Your task to perform on an android device: turn on the 24-hour format for clock Image 0: 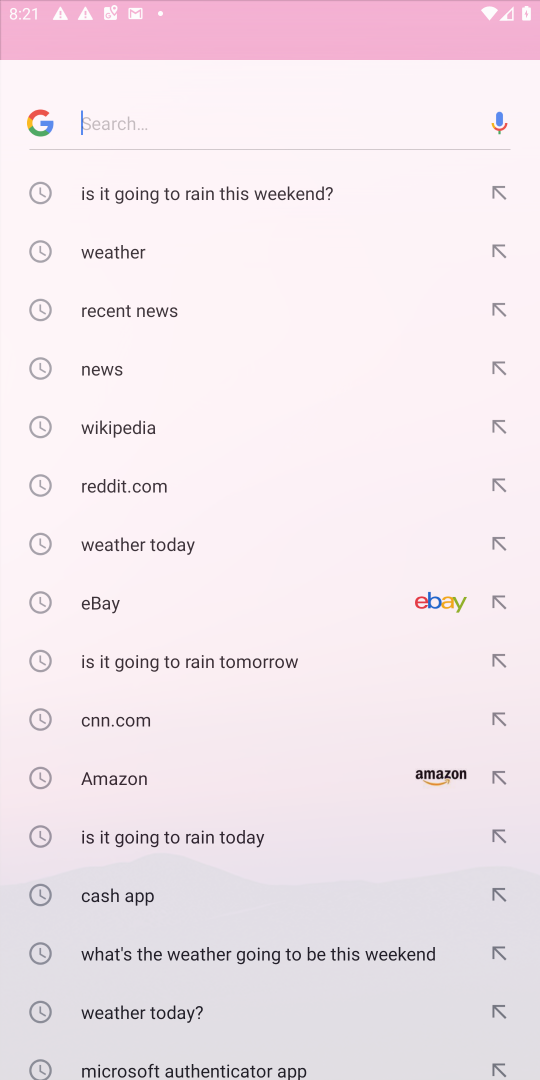
Step 0: click (492, 1046)
Your task to perform on an android device: turn on the 24-hour format for clock Image 1: 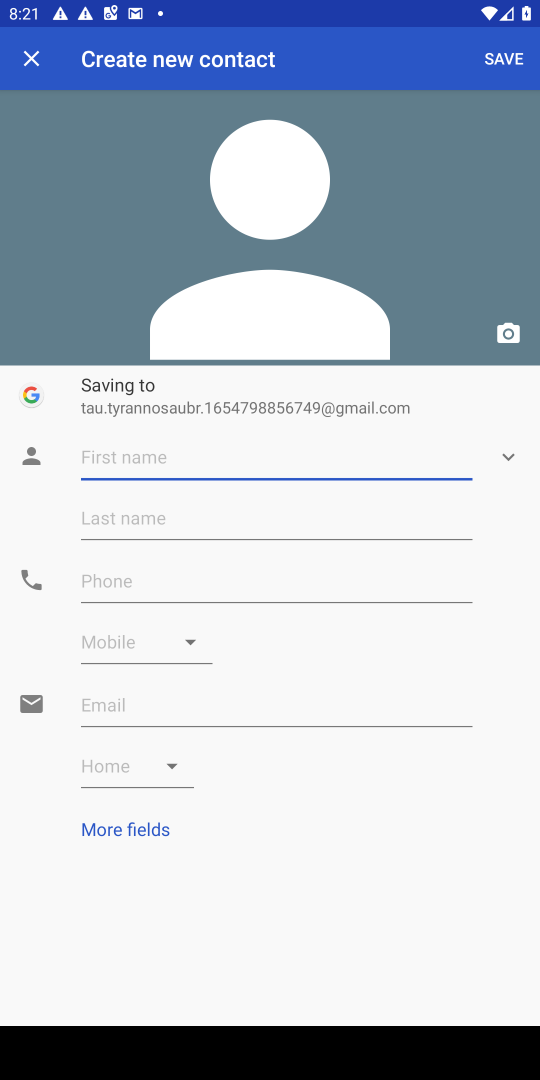
Step 1: press home button
Your task to perform on an android device: turn on the 24-hour format for clock Image 2: 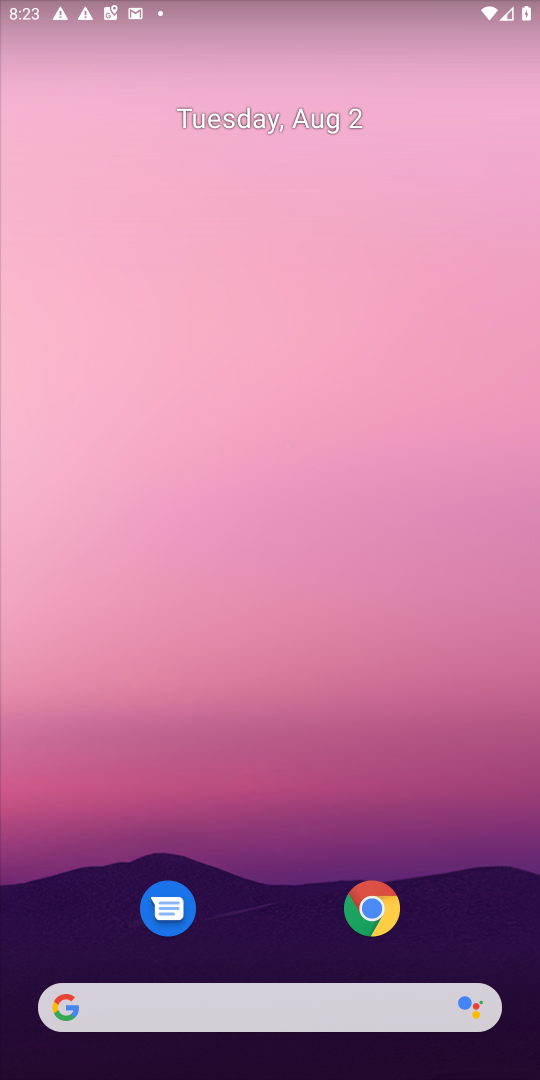
Step 2: drag from (365, 1001) to (256, 42)
Your task to perform on an android device: turn on the 24-hour format for clock Image 3: 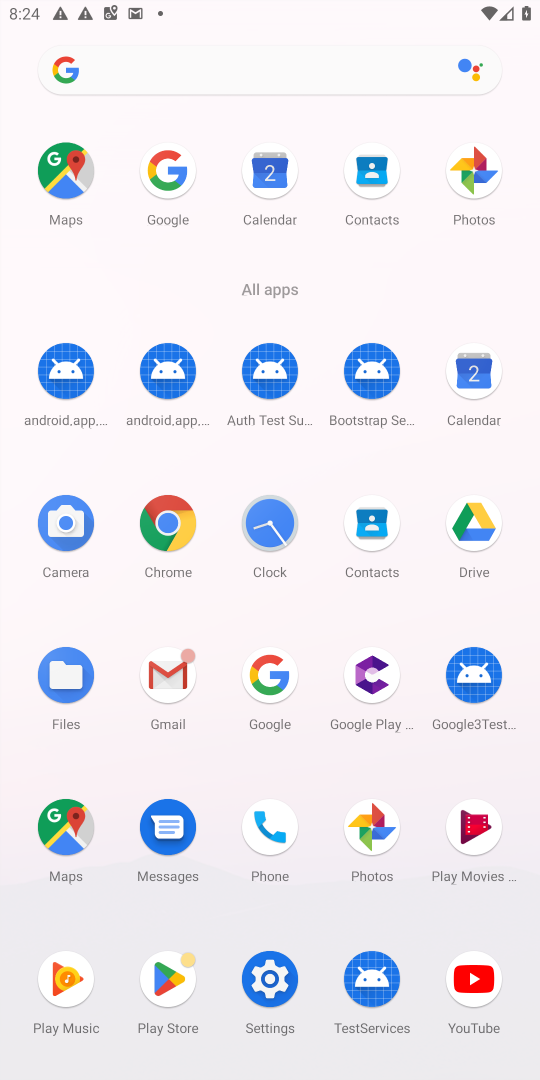
Step 3: click (286, 536)
Your task to perform on an android device: turn on the 24-hour format for clock Image 4: 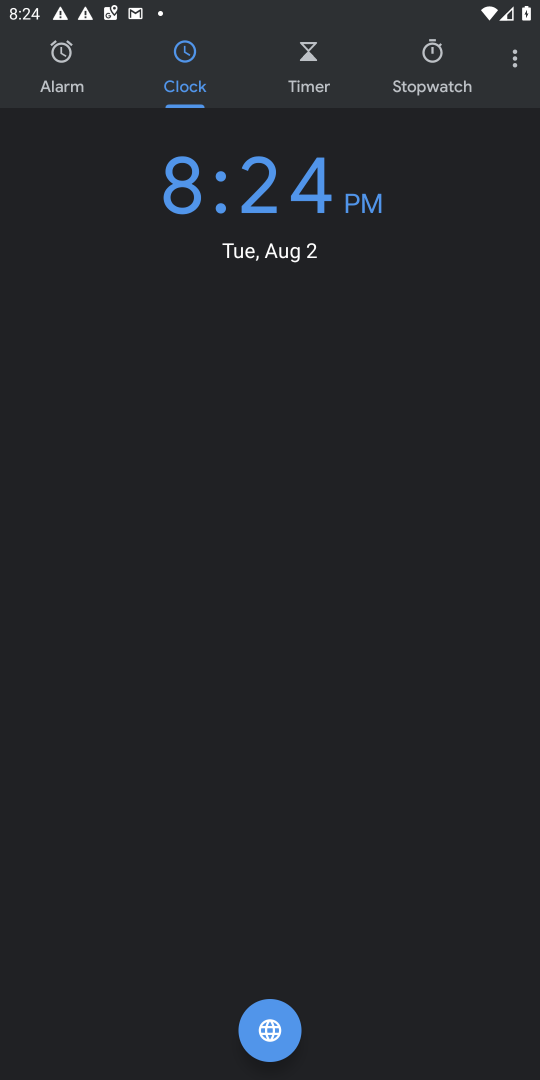
Step 4: click (519, 49)
Your task to perform on an android device: turn on the 24-hour format for clock Image 5: 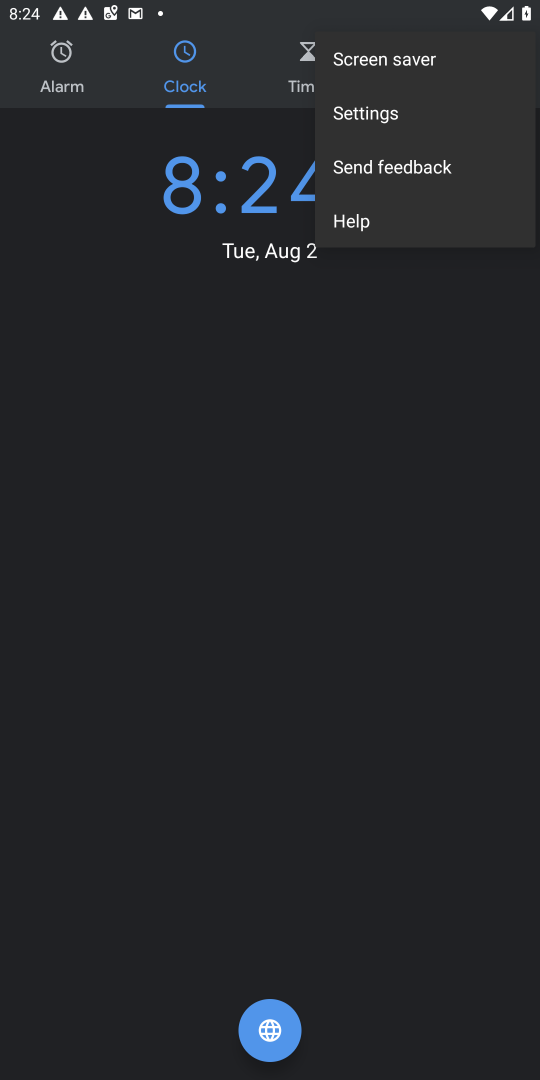
Step 5: click (381, 117)
Your task to perform on an android device: turn on the 24-hour format for clock Image 6: 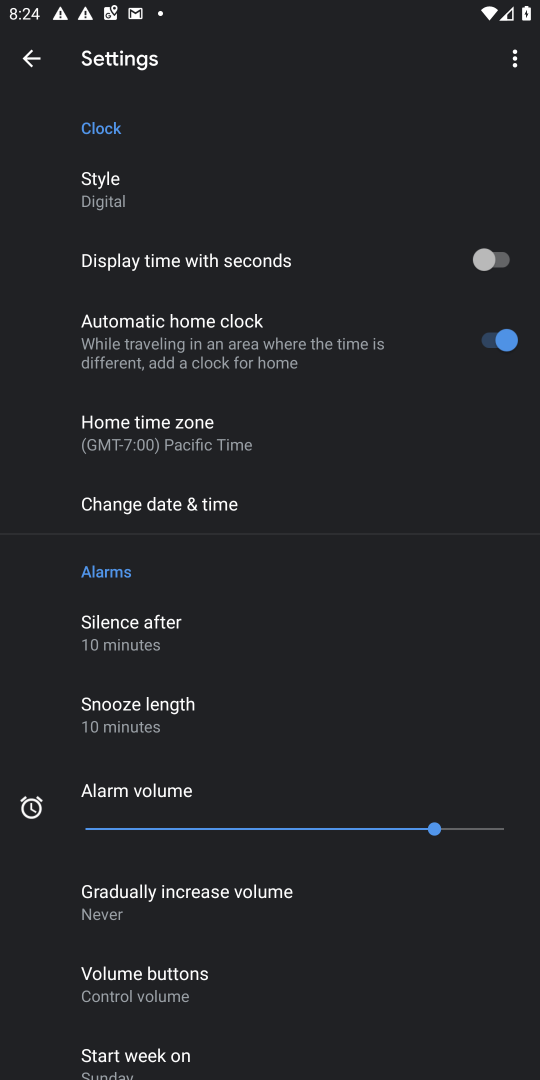
Step 6: click (242, 503)
Your task to perform on an android device: turn on the 24-hour format for clock Image 7: 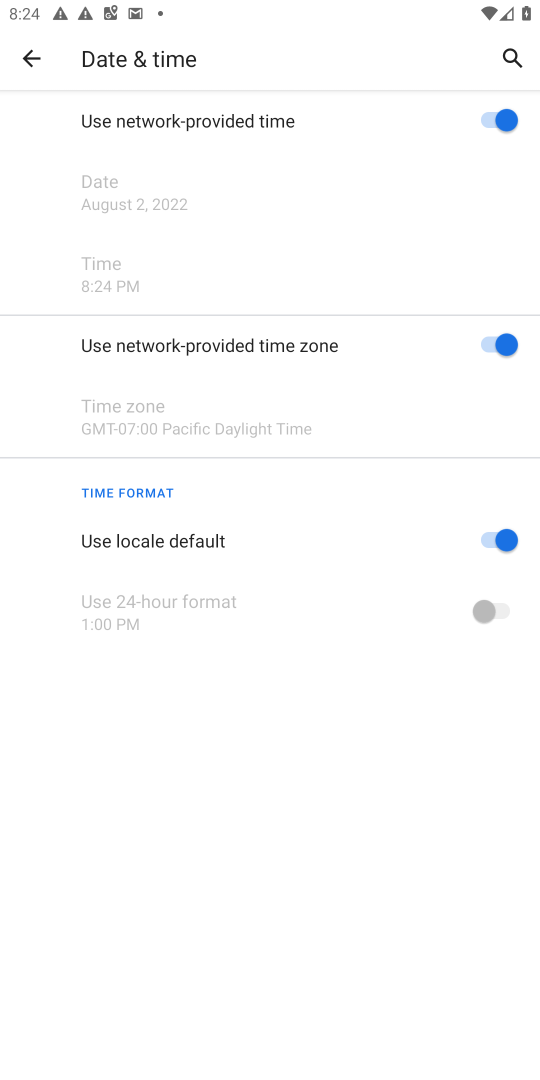
Step 7: click (505, 537)
Your task to perform on an android device: turn on the 24-hour format for clock Image 8: 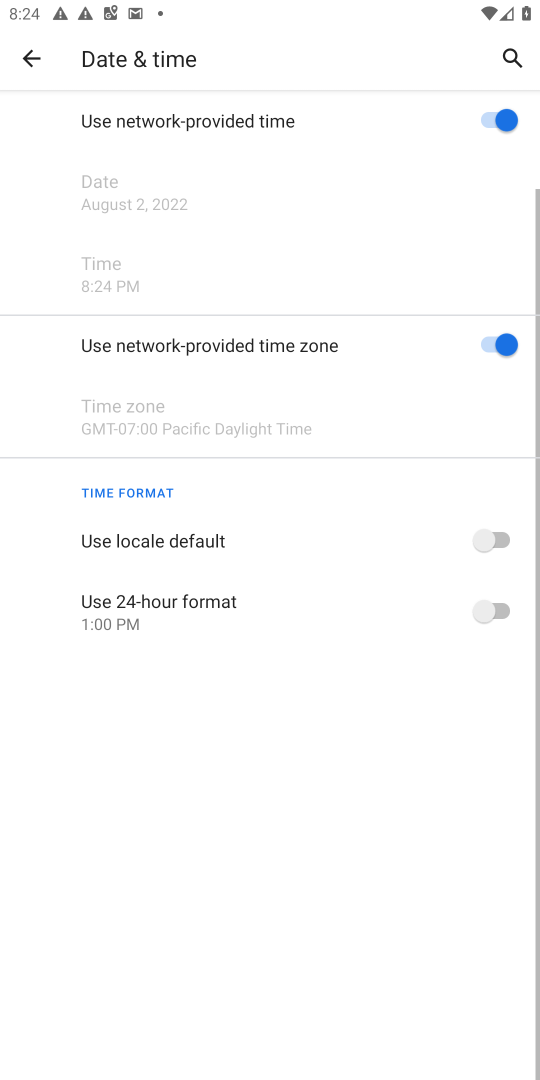
Step 8: click (497, 612)
Your task to perform on an android device: turn on the 24-hour format for clock Image 9: 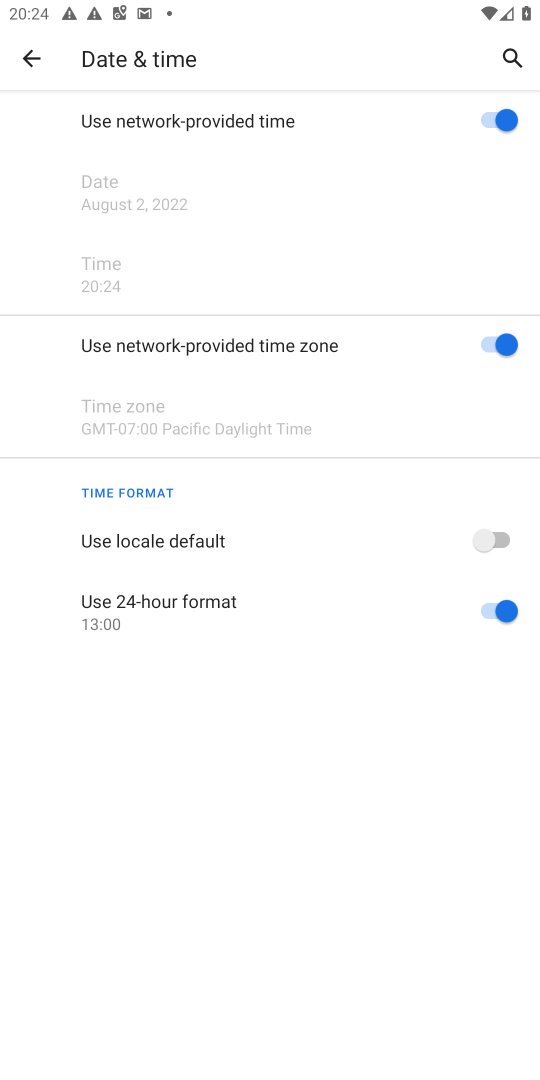
Step 9: task complete